Your task to perform on an android device: Empty the shopping cart on target.com. Add "bose soundlink mini" to the cart on target.com Image 0: 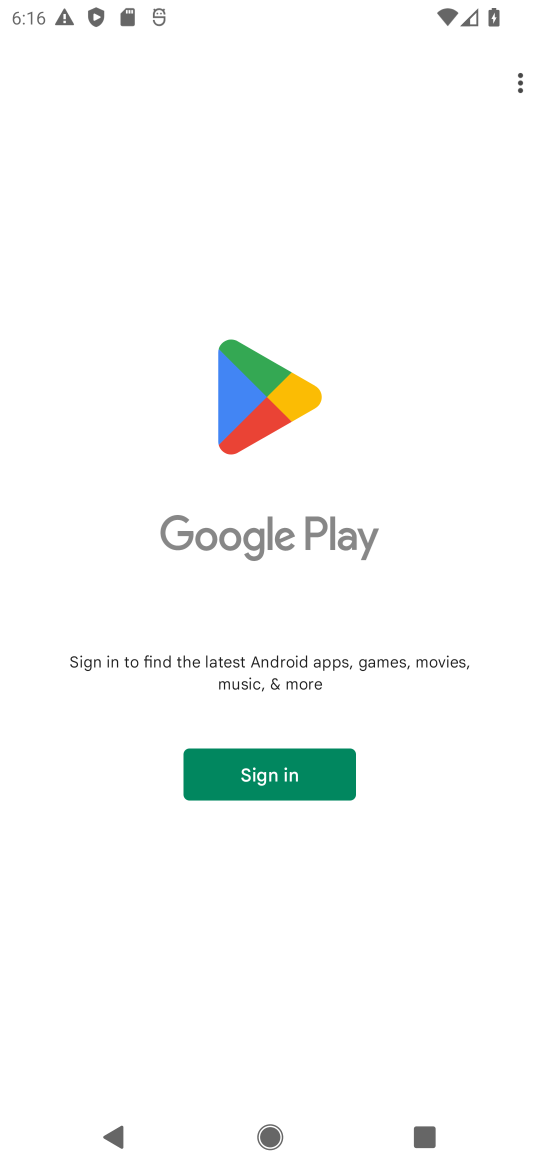
Step 0: press home button
Your task to perform on an android device: Empty the shopping cart on target.com. Add "bose soundlink mini" to the cart on target.com Image 1: 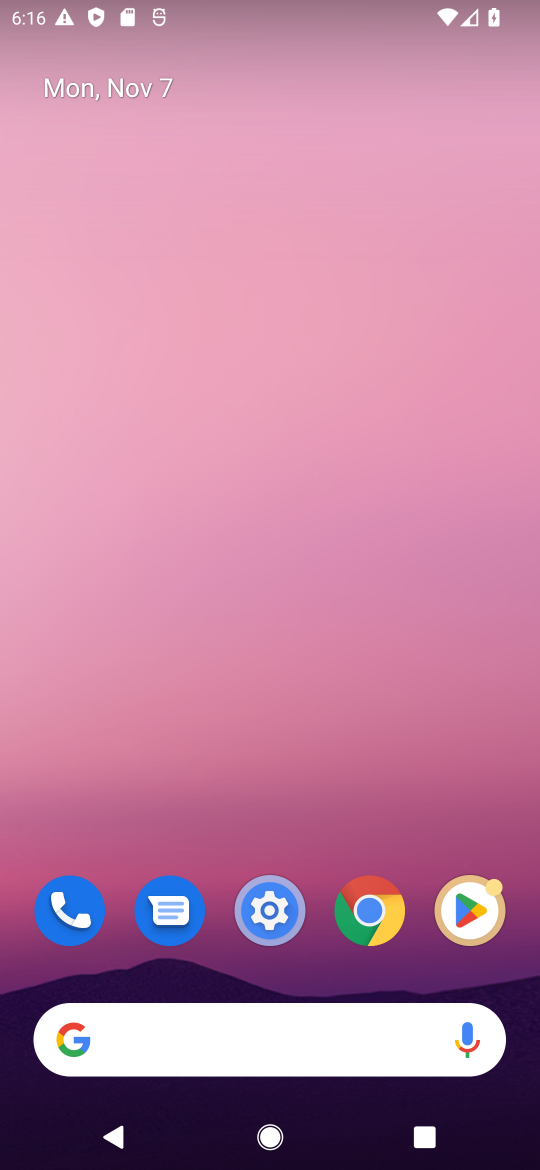
Step 1: click (362, 918)
Your task to perform on an android device: Empty the shopping cart on target.com. Add "bose soundlink mini" to the cart on target.com Image 2: 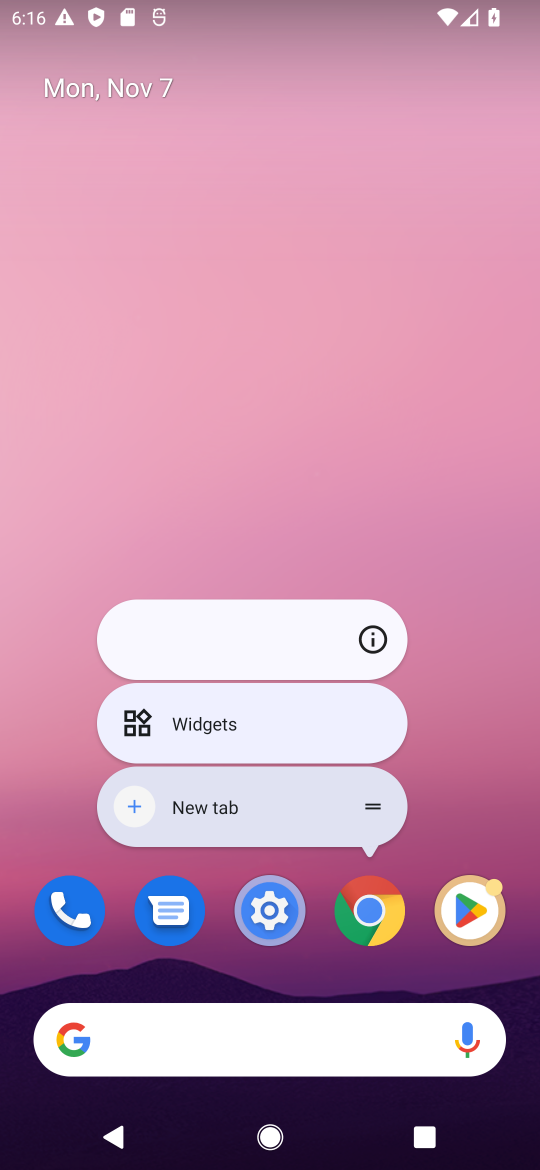
Step 2: click (395, 918)
Your task to perform on an android device: Empty the shopping cart on target.com. Add "bose soundlink mini" to the cart on target.com Image 3: 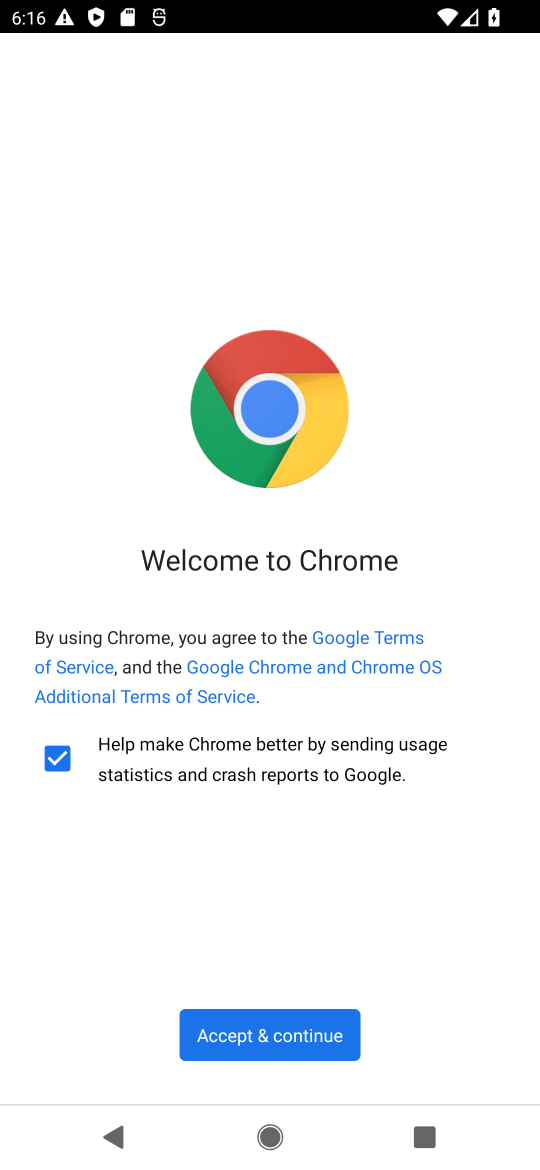
Step 3: click (287, 1048)
Your task to perform on an android device: Empty the shopping cart on target.com. Add "bose soundlink mini" to the cart on target.com Image 4: 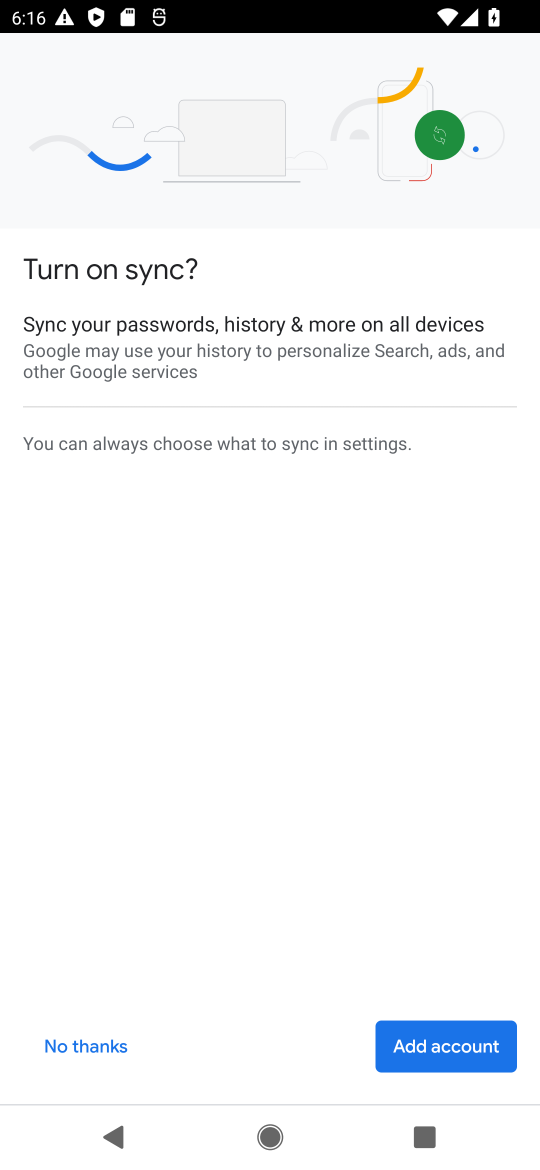
Step 4: click (429, 1056)
Your task to perform on an android device: Empty the shopping cart on target.com. Add "bose soundlink mini" to the cart on target.com Image 5: 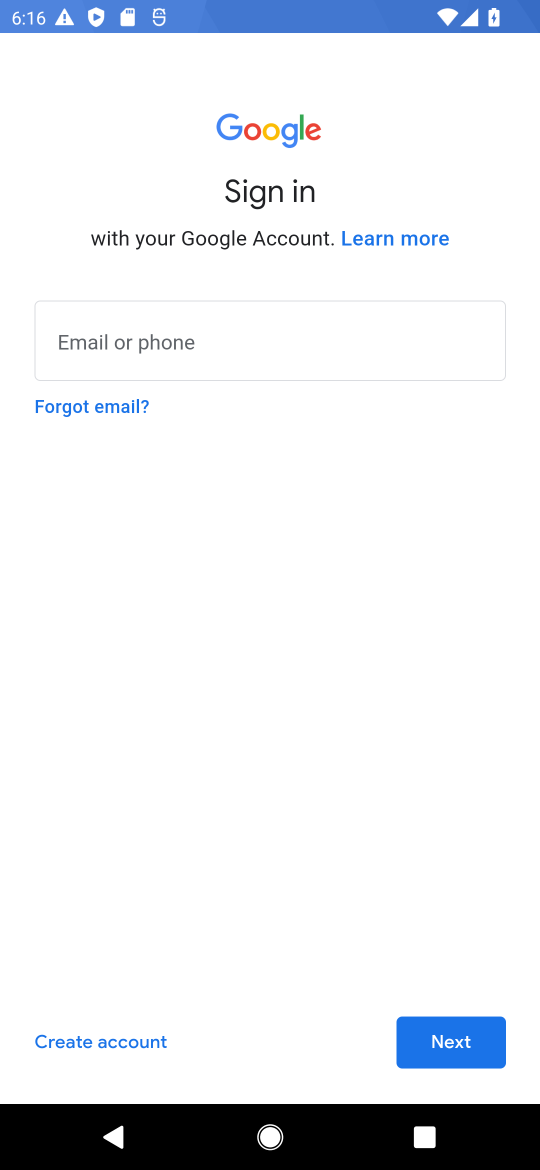
Step 5: click (432, 1058)
Your task to perform on an android device: Empty the shopping cart on target.com. Add "bose soundlink mini" to the cart on target.com Image 6: 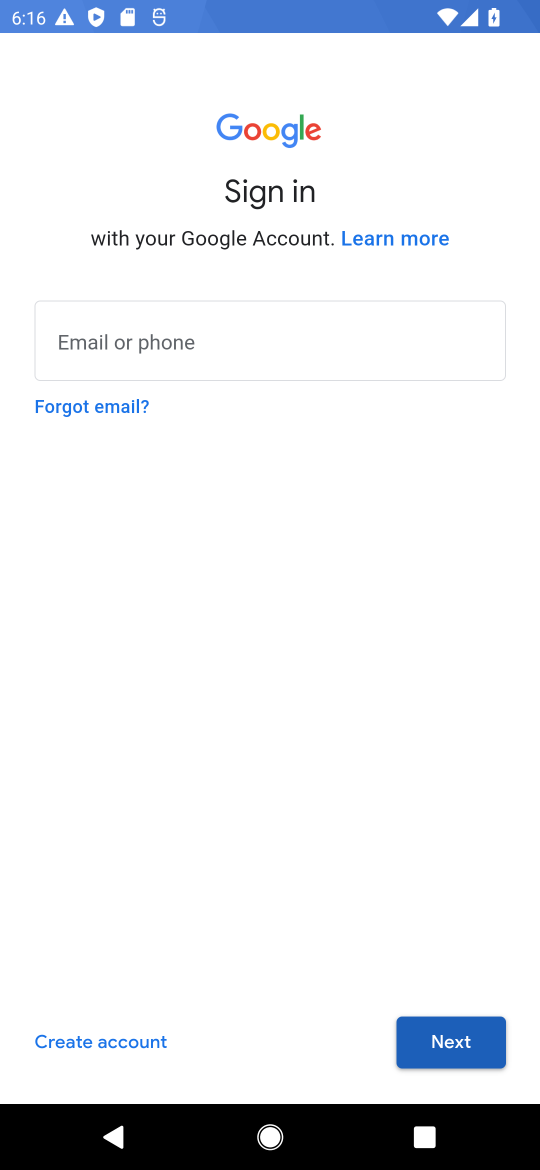
Step 6: click (131, 1044)
Your task to perform on an android device: Empty the shopping cart on target.com. Add "bose soundlink mini" to the cart on target.com Image 7: 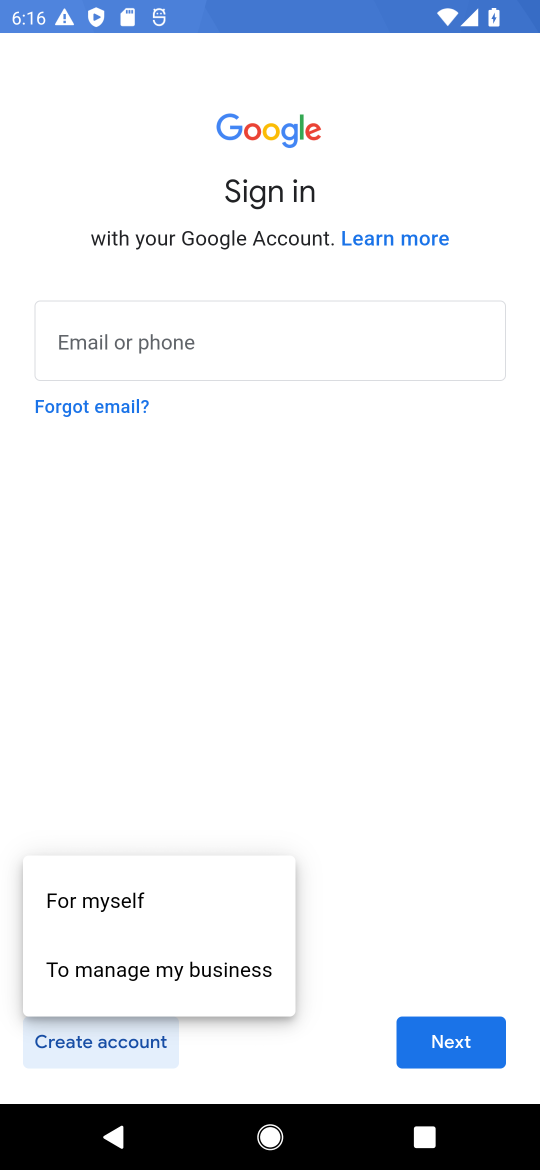
Step 7: click (401, 946)
Your task to perform on an android device: Empty the shopping cart on target.com. Add "bose soundlink mini" to the cart on target.com Image 8: 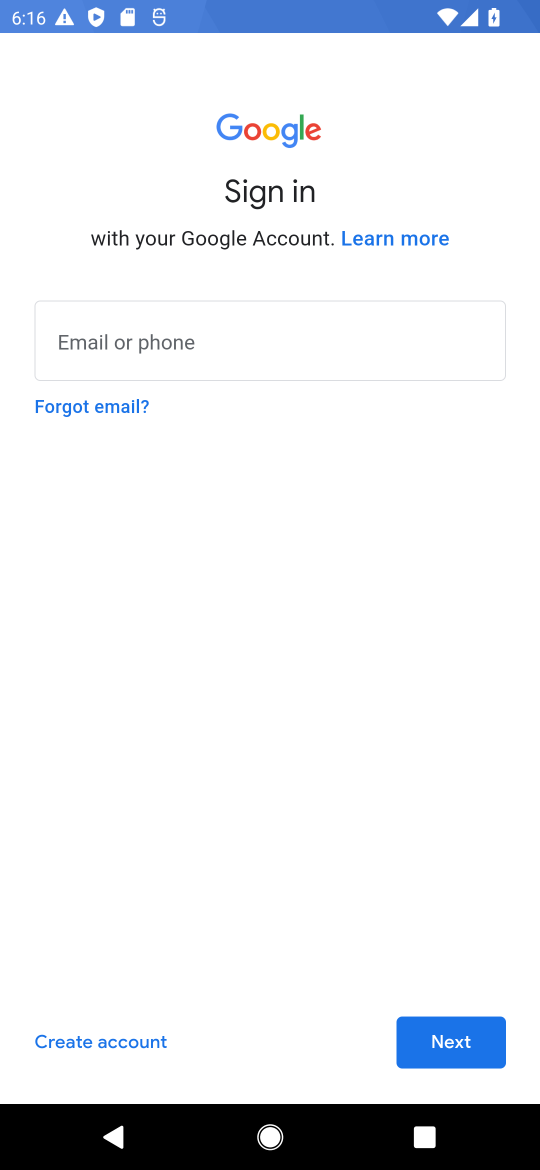
Step 8: click (463, 1072)
Your task to perform on an android device: Empty the shopping cart on target.com. Add "bose soundlink mini" to the cart on target.com Image 9: 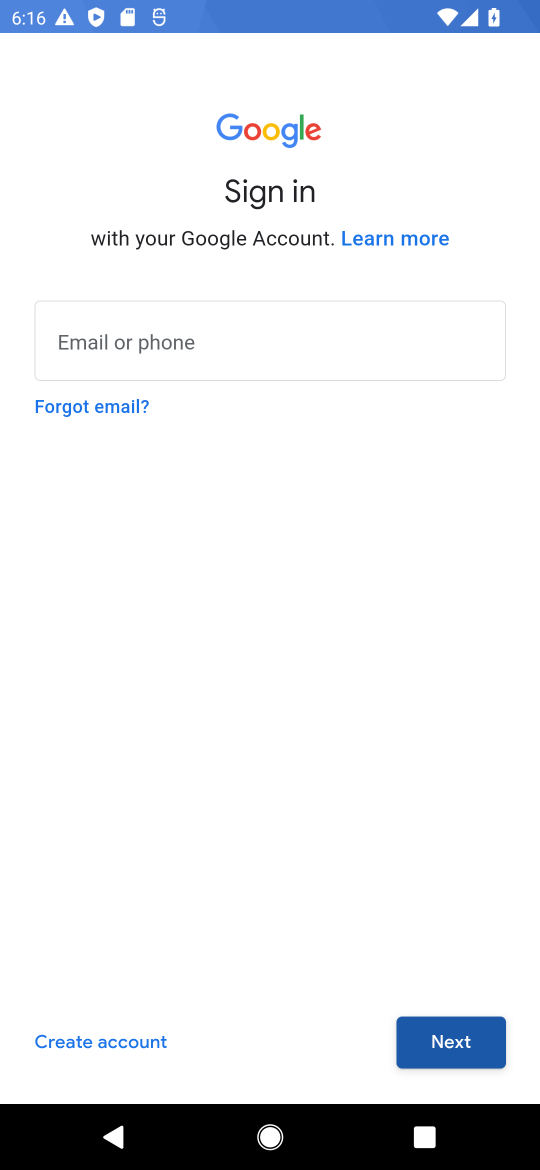
Step 9: click (460, 1064)
Your task to perform on an android device: Empty the shopping cart on target.com. Add "bose soundlink mini" to the cart on target.com Image 10: 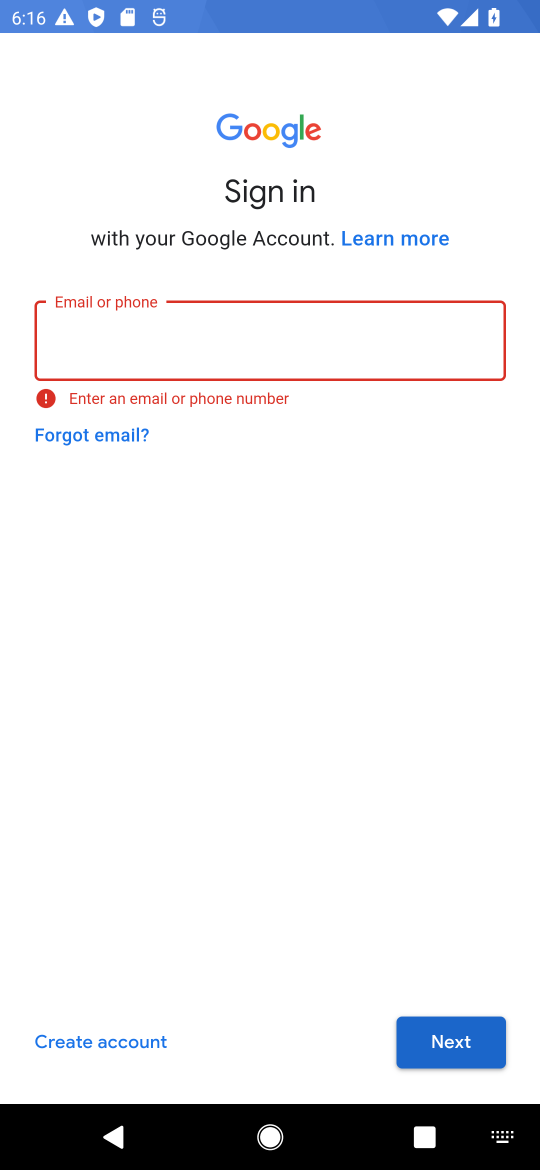
Step 10: click (459, 1062)
Your task to perform on an android device: Empty the shopping cart on target.com. Add "bose soundlink mini" to the cart on target.com Image 11: 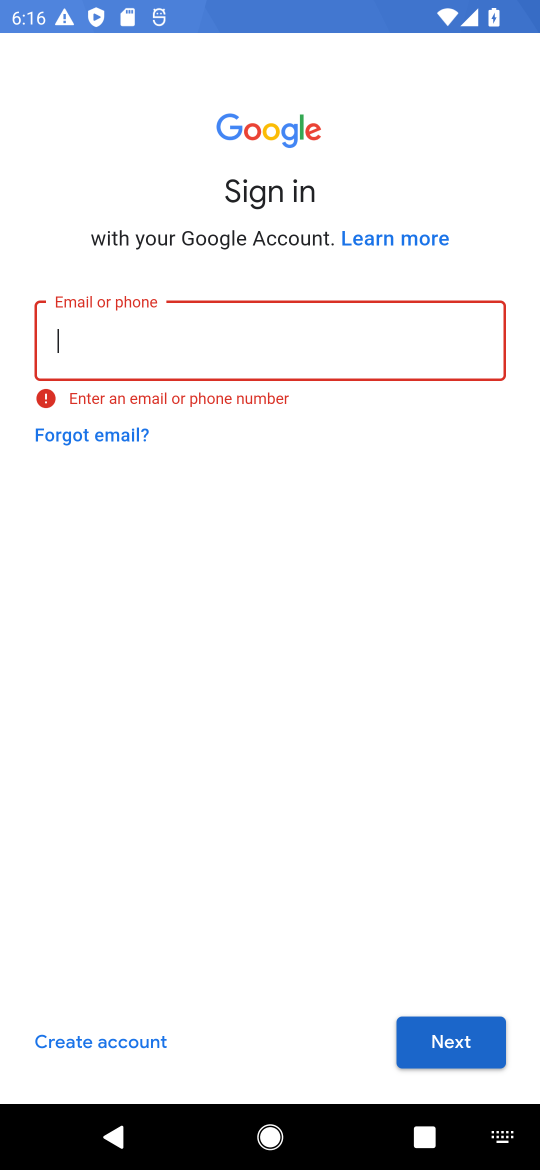
Step 11: press home button
Your task to perform on an android device: Empty the shopping cart on target.com. Add "bose soundlink mini" to the cart on target.com Image 12: 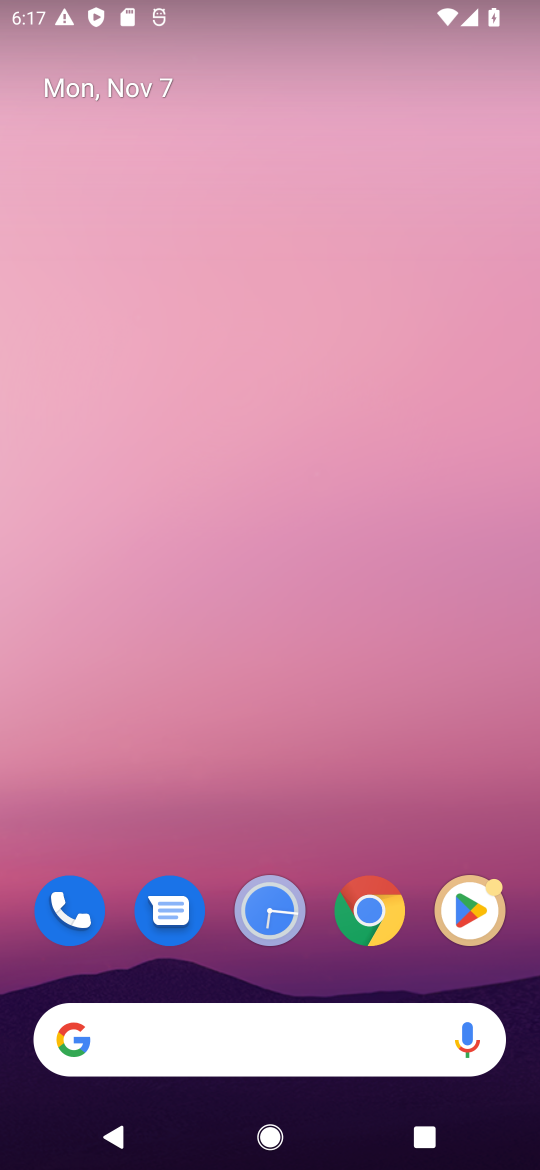
Step 12: click (364, 902)
Your task to perform on an android device: Empty the shopping cart on target.com. Add "bose soundlink mini" to the cart on target.com Image 13: 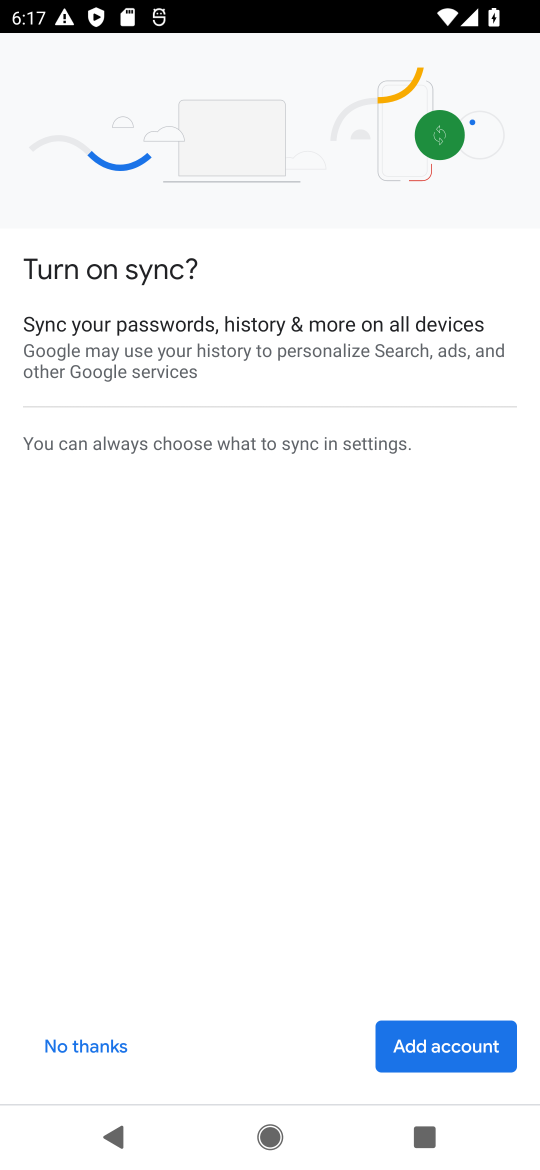
Step 13: click (98, 1041)
Your task to perform on an android device: Empty the shopping cart on target.com. Add "bose soundlink mini" to the cart on target.com Image 14: 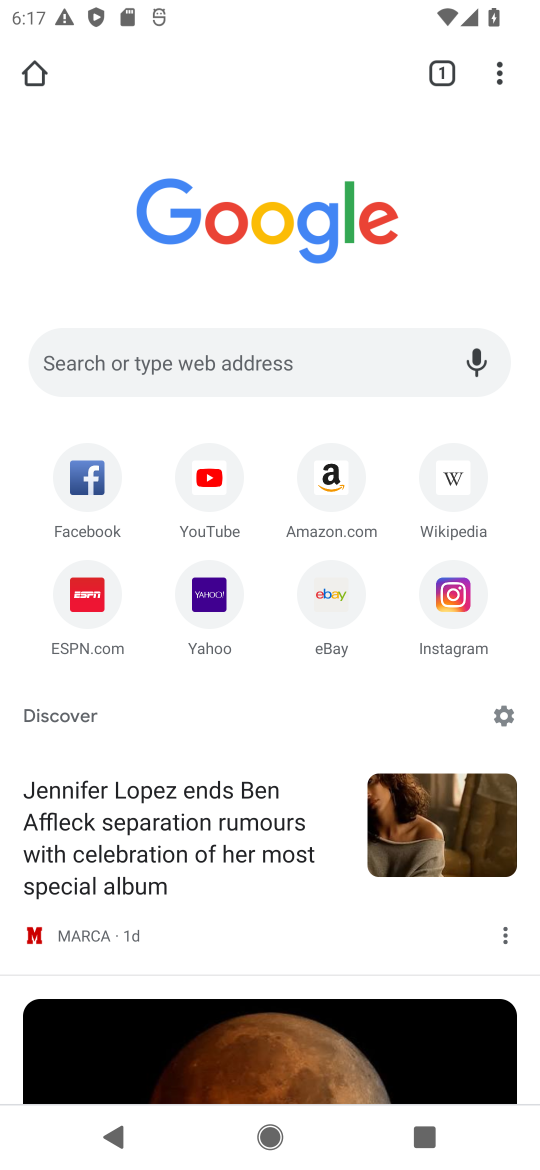
Step 14: click (256, 375)
Your task to perform on an android device: Empty the shopping cart on target.com. Add "bose soundlink mini" to the cart on target.com Image 15: 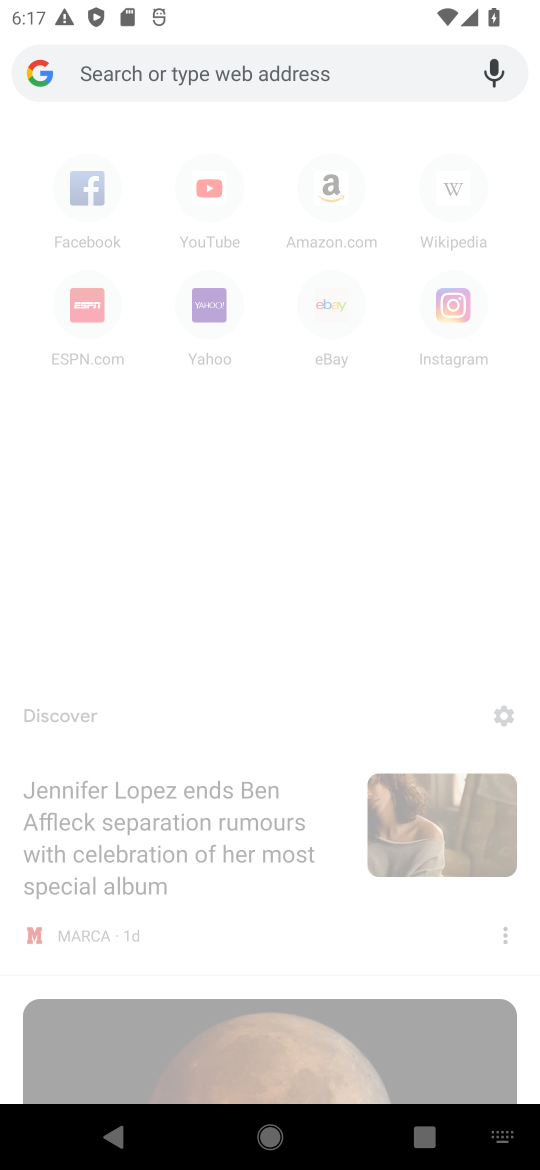
Step 15: press enter
Your task to perform on an android device: Empty the shopping cart on target.com. Add "bose soundlink mini" to the cart on target.com Image 16: 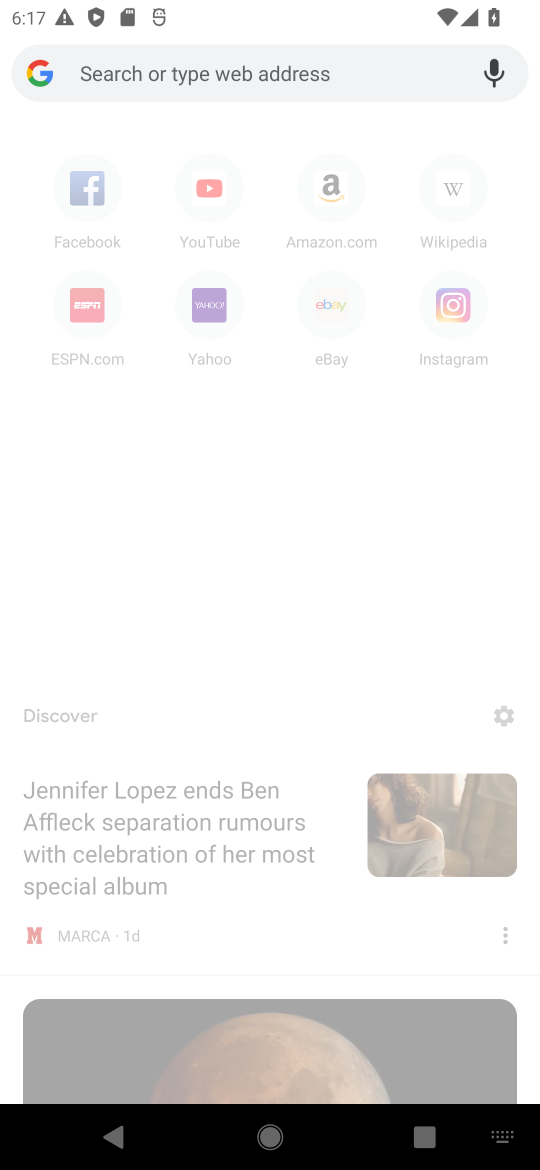
Step 16: type "target.com"
Your task to perform on an android device: Empty the shopping cart on target.com. Add "bose soundlink mini" to the cart on target.com Image 17: 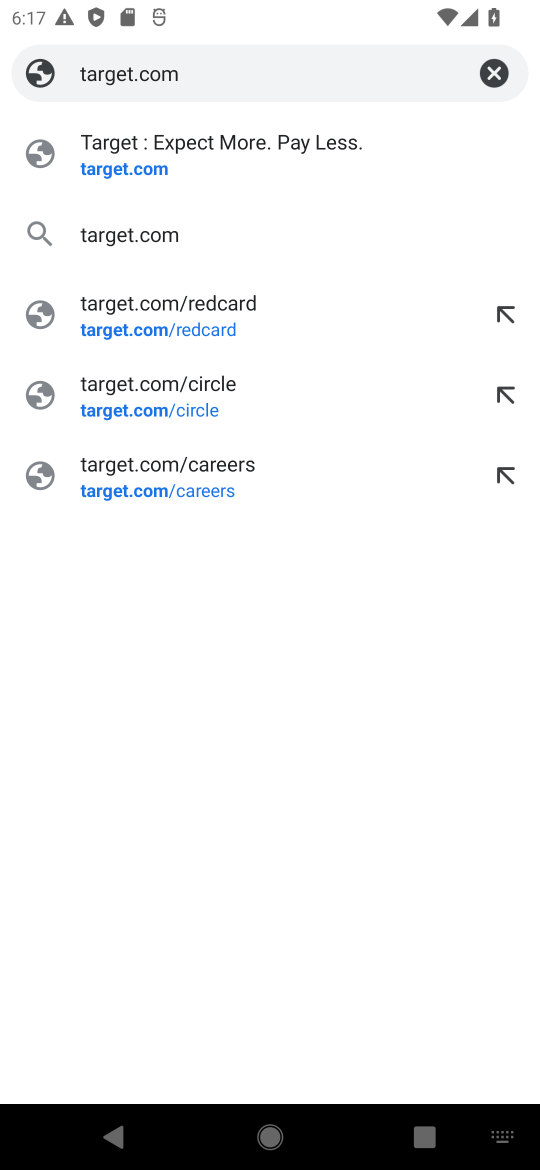
Step 17: press enter
Your task to perform on an android device: Empty the shopping cart on target.com. Add "bose soundlink mini" to the cart on target.com Image 18: 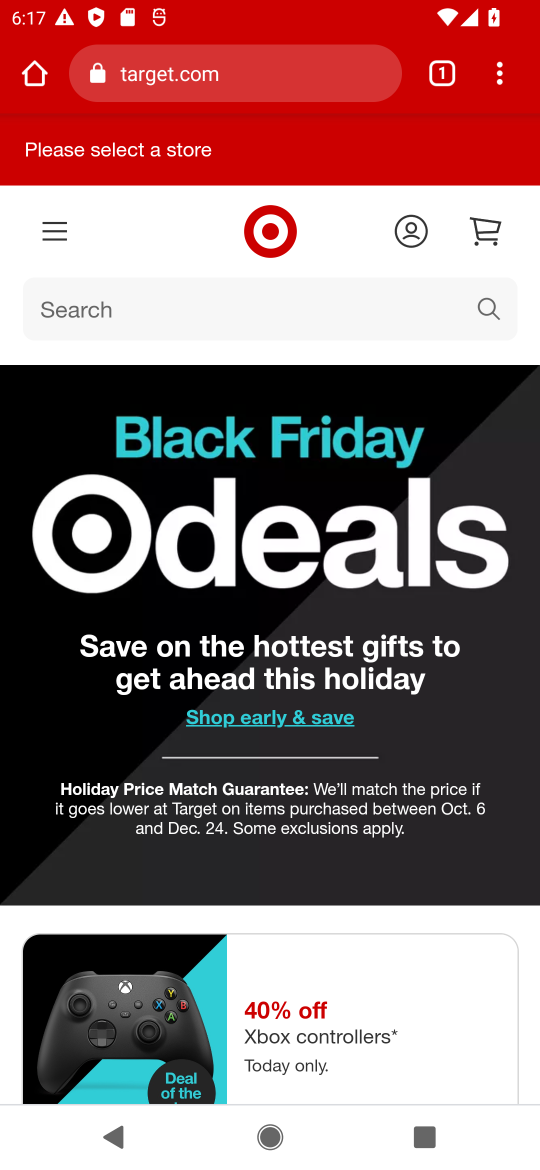
Step 18: click (494, 236)
Your task to perform on an android device: Empty the shopping cart on target.com. Add "bose soundlink mini" to the cart on target.com Image 19: 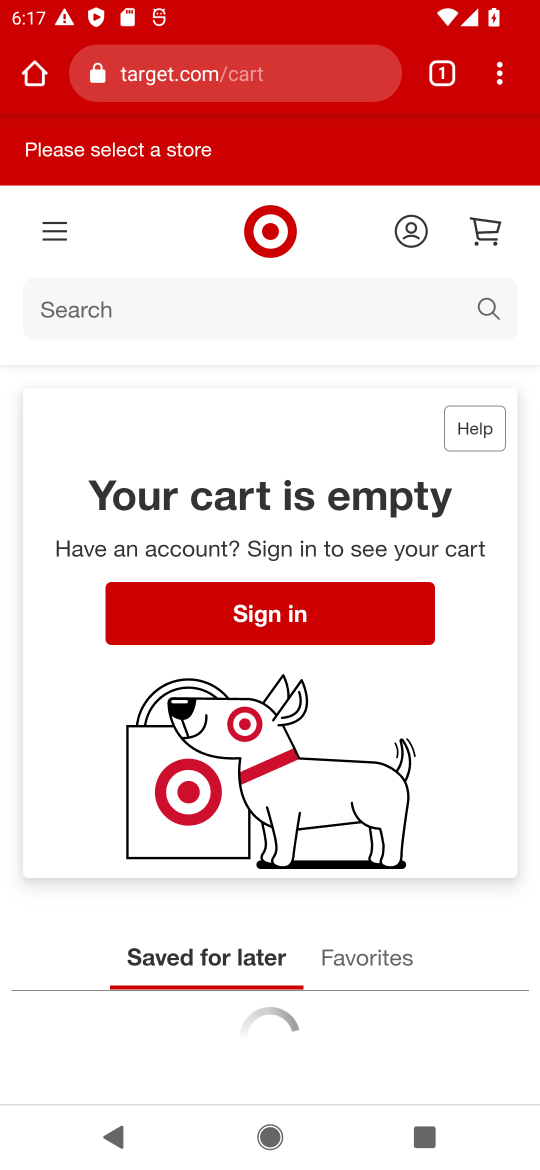
Step 19: click (112, 299)
Your task to perform on an android device: Empty the shopping cart on target.com. Add "bose soundlink mini" to the cart on target.com Image 20: 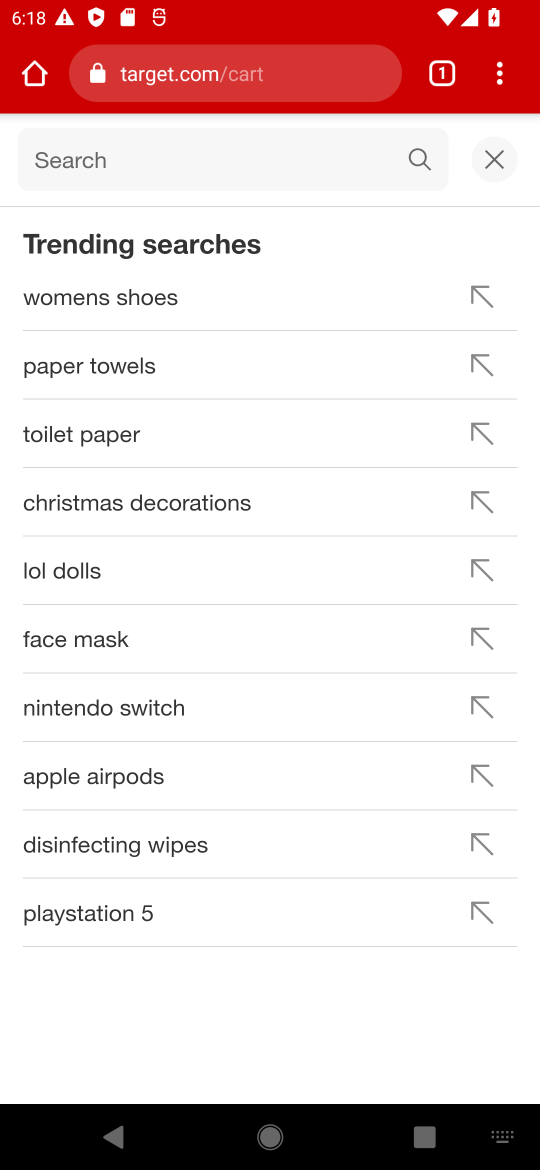
Step 20: type "bose soundlink mini"
Your task to perform on an android device: Empty the shopping cart on target.com. Add "bose soundlink mini" to the cart on target.com Image 21: 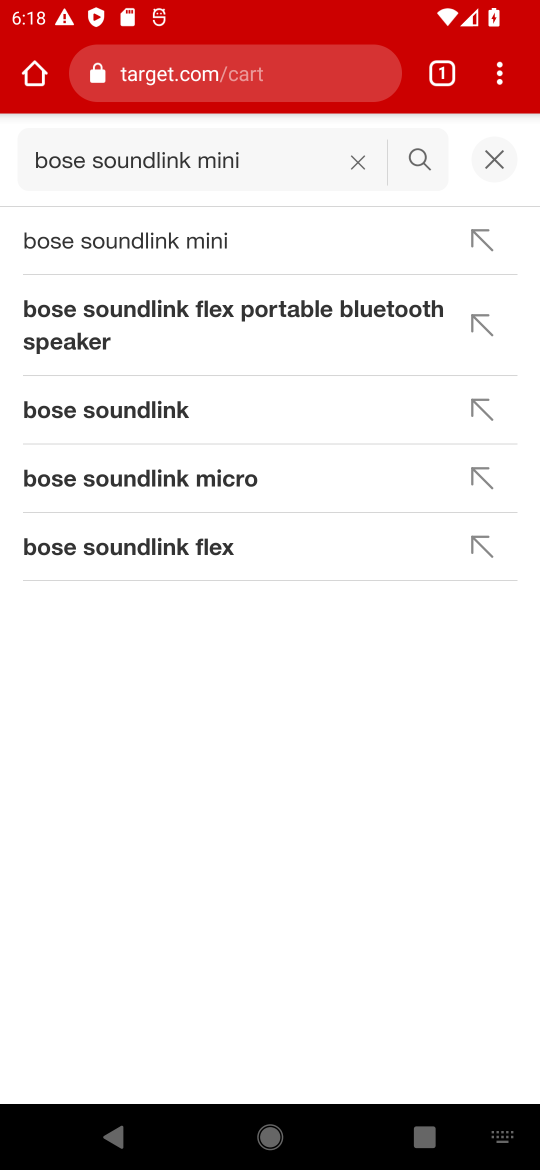
Step 21: press enter
Your task to perform on an android device: Empty the shopping cart on target.com. Add "bose soundlink mini" to the cart on target.com Image 22: 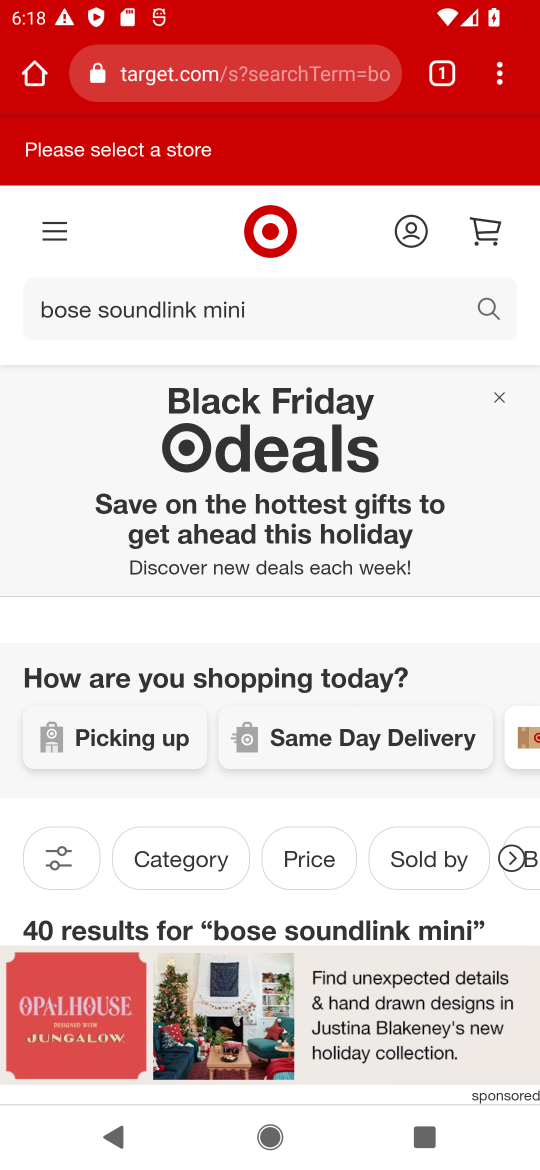
Step 22: drag from (306, 847) to (299, 448)
Your task to perform on an android device: Empty the shopping cart on target.com. Add "bose soundlink mini" to the cart on target.com Image 23: 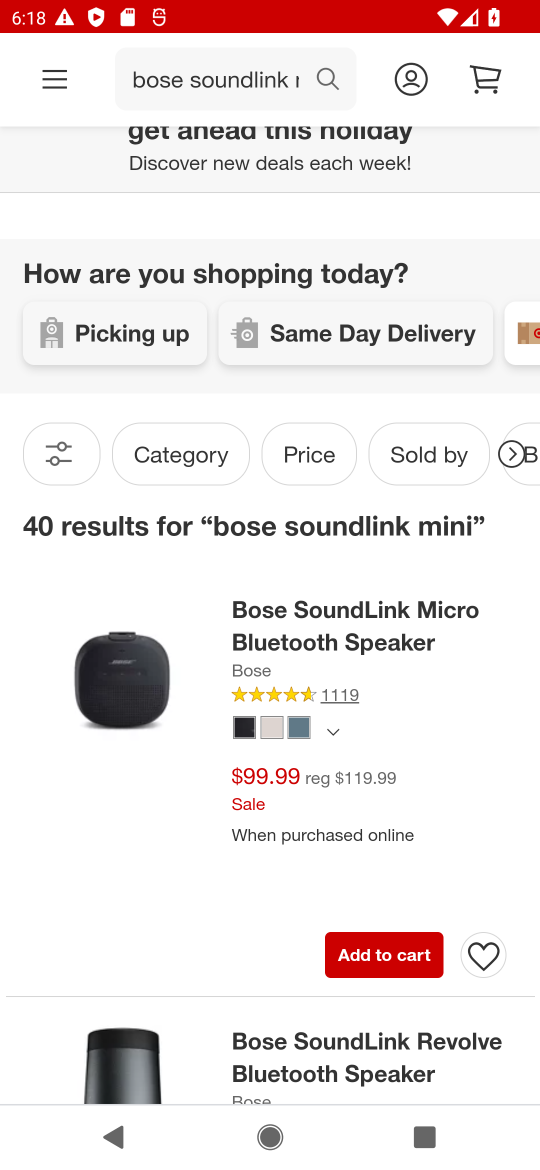
Step 23: click (383, 972)
Your task to perform on an android device: Empty the shopping cart on target.com. Add "bose soundlink mini" to the cart on target.com Image 24: 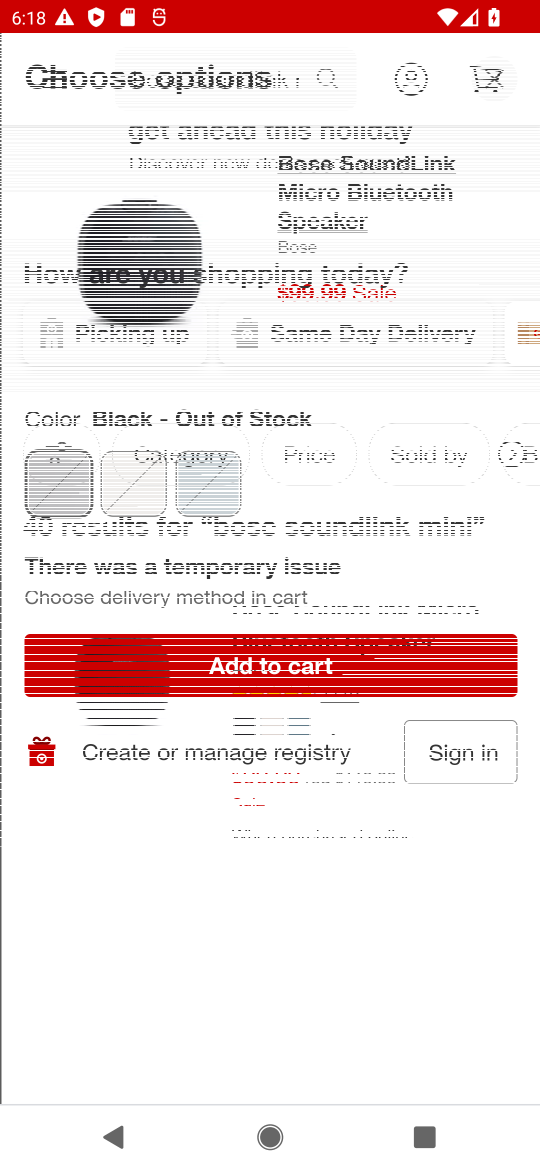
Step 24: click (273, 681)
Your task to perform on an android device: Empty the shopping cart on target.com. Add "bose soundlink mini" to the cart on target.com Image 25: 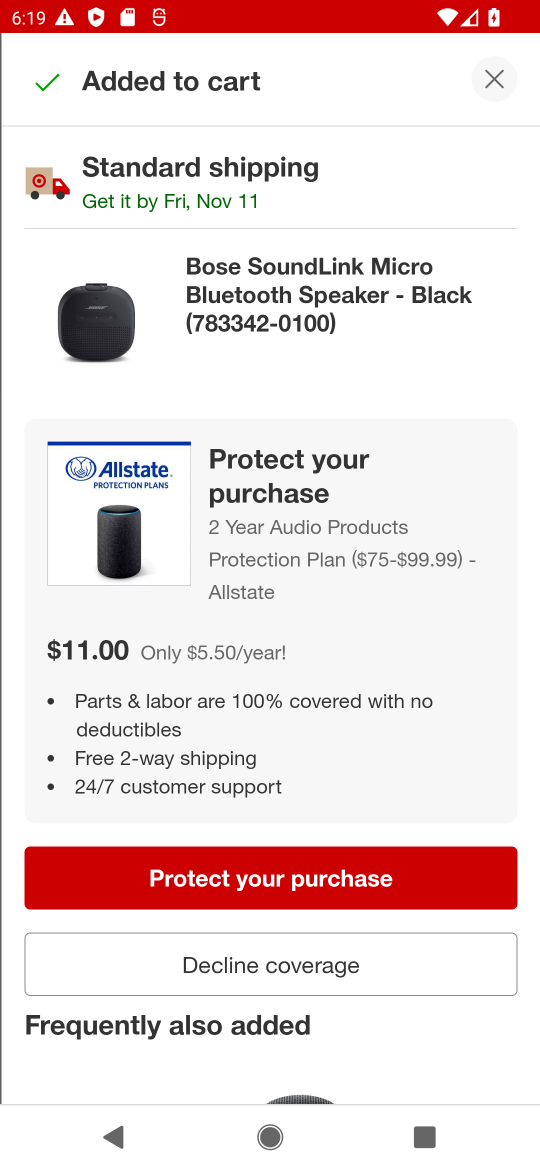
Step 25: task complete